Your task to perform on an android device: turn smart compose on in the gmail app Image 0: 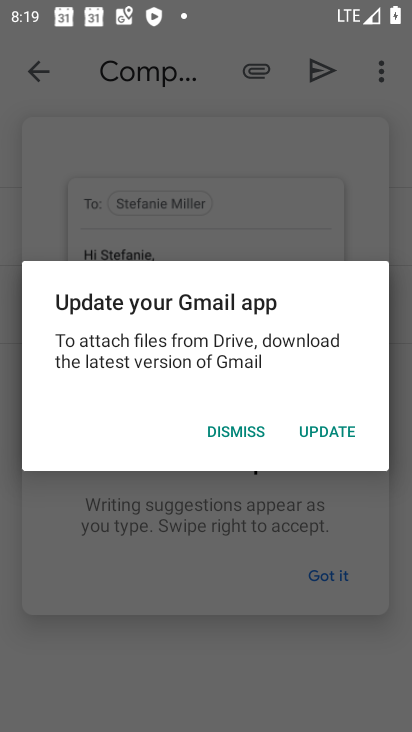
Step 0: press home button
Your task to perform on an android device: turn smart compose on in the gmail app Image 1: 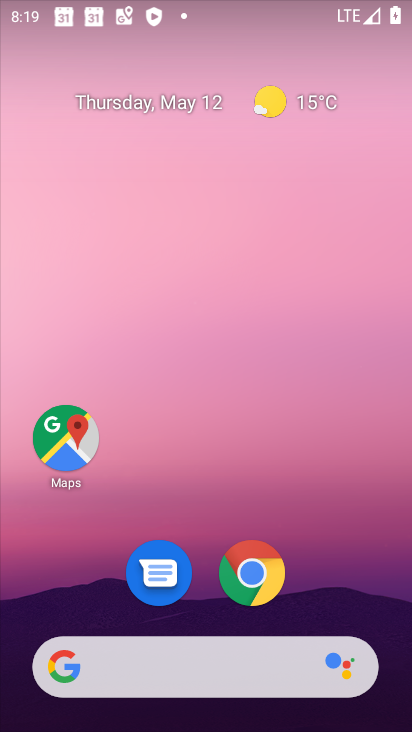
Step 1: drag from (319, 561) to (230, 54)
Your task to perform on an android device: turn smart compose on in the gmail app Image 2: 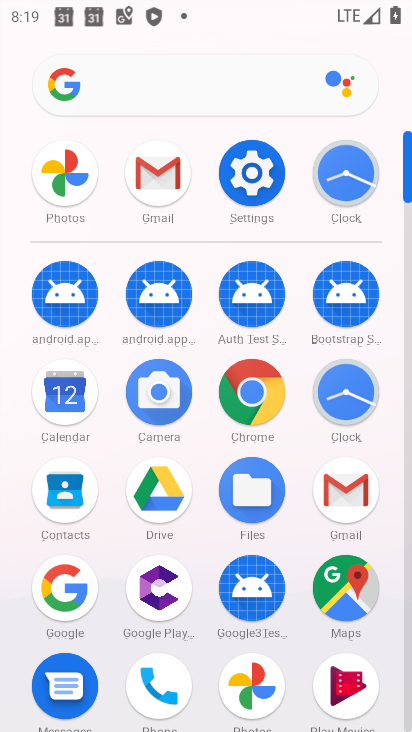
Step 2: click (143, 192)
Your task to perform on an android device: turn smart compose on in the gmail app Image 3: 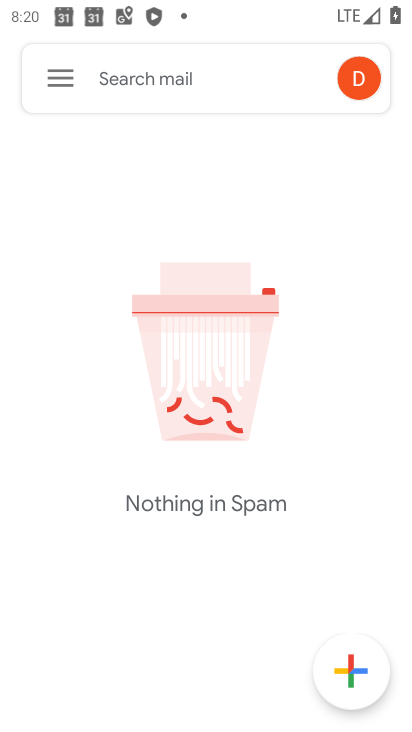
Step 3: click (57, 73)
Your task to perform on an android device: turn smart compose on in the gmail app Image 4: 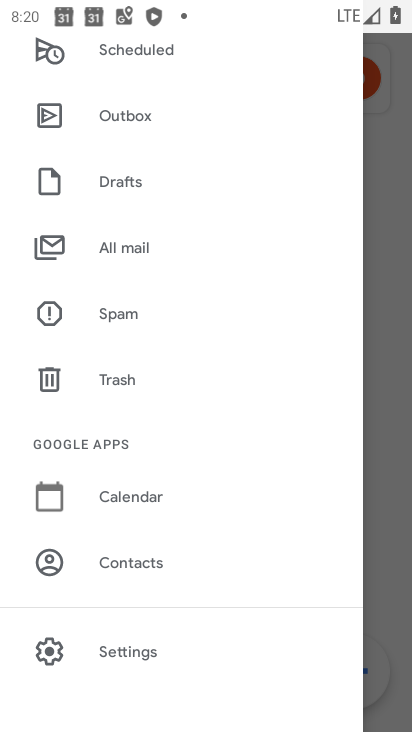
Step 4: click (119, 648)
Your task to perform on an android device: turn smart compose on in the gmail app Image 5: 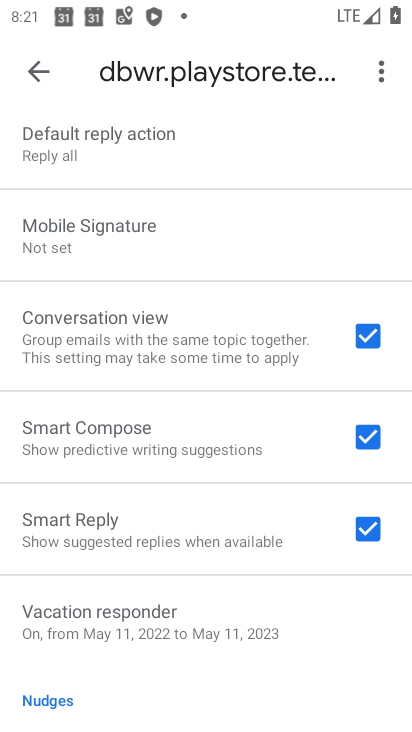
Step 5: task complete